Your task to perform on an android device: add a contact in the contacts app Image 0: 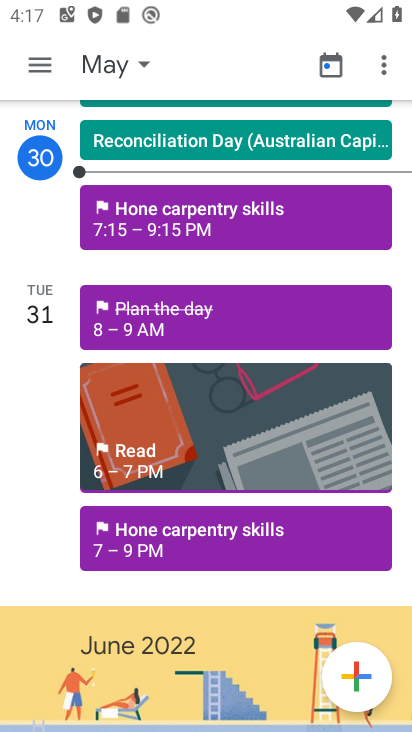
Step 0: press home button
Your task to perform on an android device: add a contact in the contacts app Image 1: 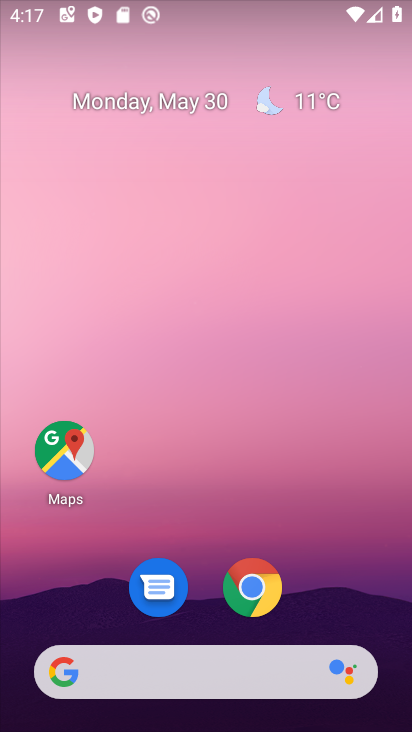
Step 1: drag from (353, 599) to (189, 80)
Your task to perform on an android device: add a contact in the contacts app Image 2: 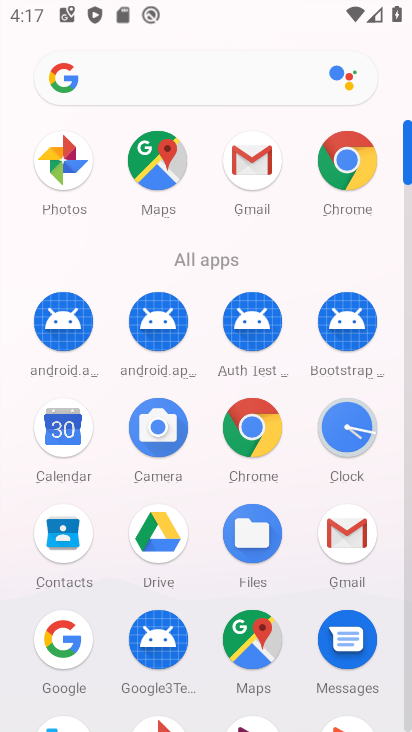
Step 2: click (61, 524)
Your task to perform on an android device: add a contact in the contacts app Image 3: 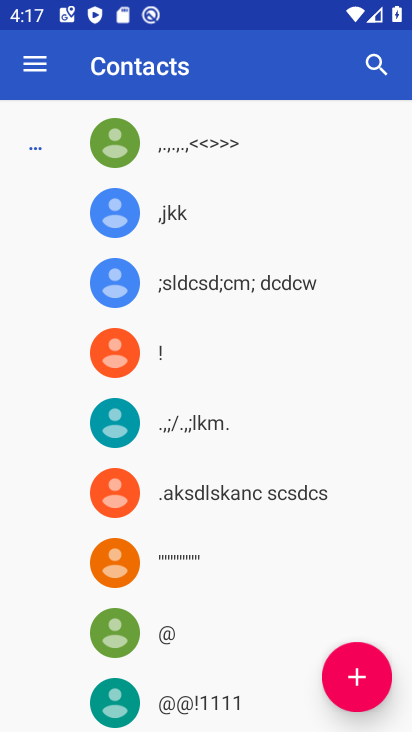
Step 3: click (350, 682)
Your task to perform on an android device: add a contact in the contacts app Image 4: 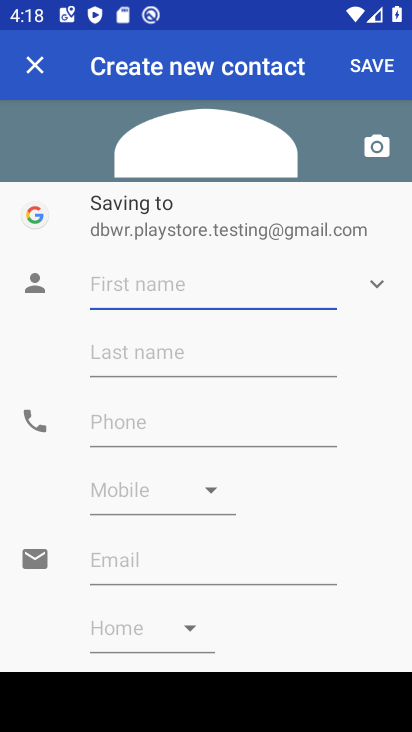
Step 4: type "bhkbkbkhhb"
Your task to perform on an android device: add a contact in the contacts app Image 5: 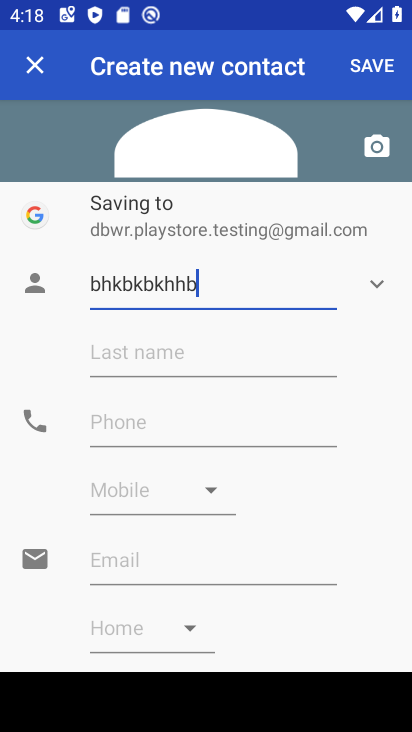
Step 5: click (253, 433)
Your task to perform on an android device: add a contact in the contacts app Image 6: 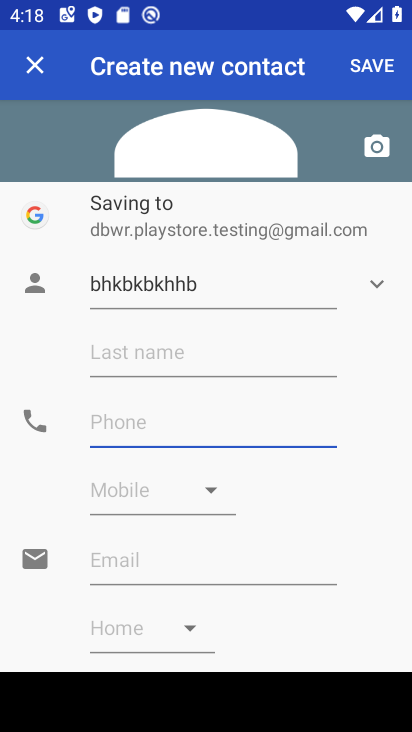
Step 6: type "9878798789"
Your task to perform on an android device: add a contact in the contacts app Image 7: 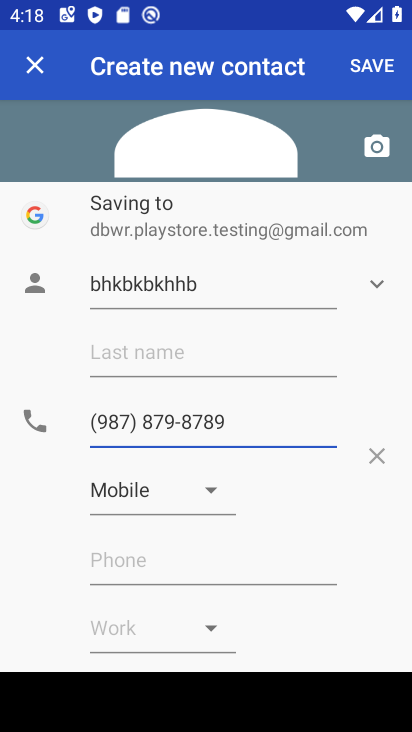
Step 7: click (383, 69)
Your task to perform on an android device: add a contact in the contacts app Image 8: 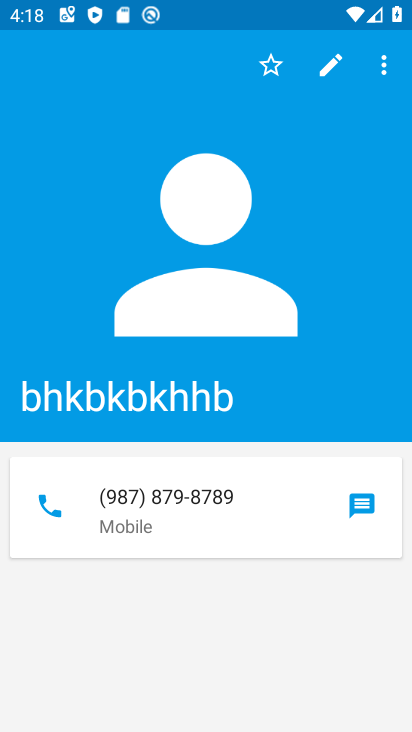
Step 8: task complete